Your task to perform on an android device: When is my next meeting? Image 0: 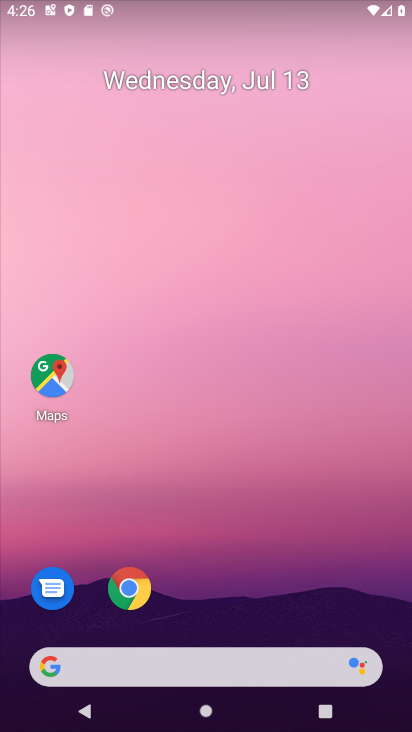
Step 0: drag from (52, 692) to (271, 180)
Your task to perform on an android device: When is my next meeting? Image 1: 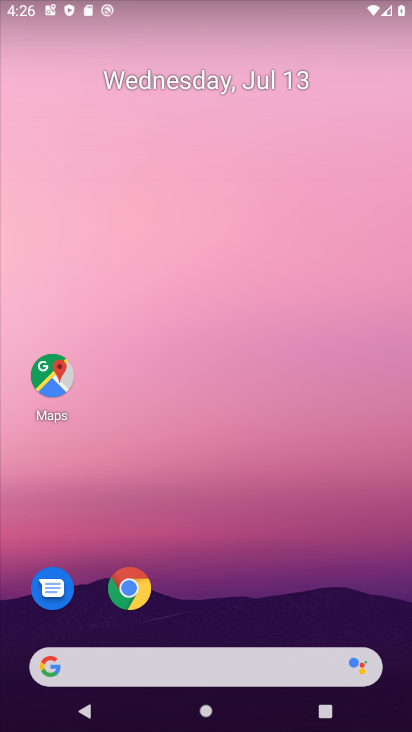
Step 1: drag from (42, 699) to (347, 114)
Your task to perform on an android device: When is my next meeting? Image 2: 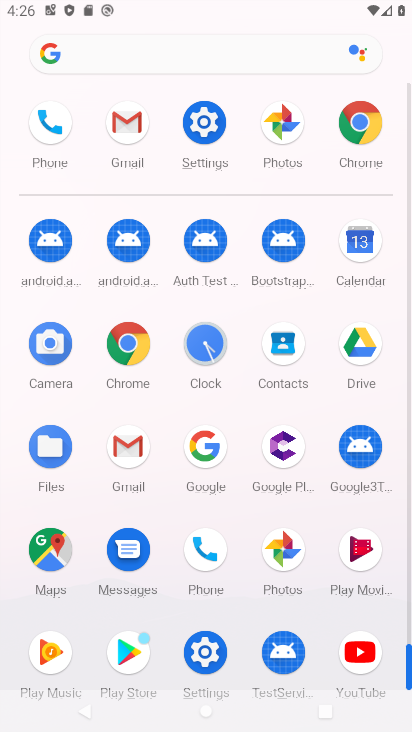
Step 2: click (347, 264)
Your task to perform on an android device: When is my next meeting? Image 3: 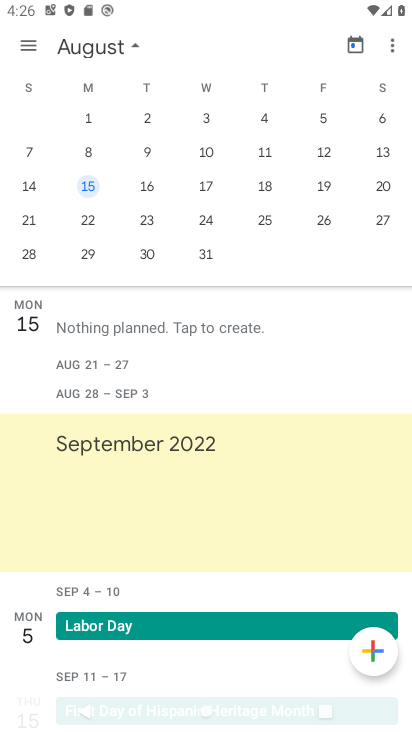
Step 3: task complete